Your task to perform on an android device: turn on improve location accuracy Image 0: 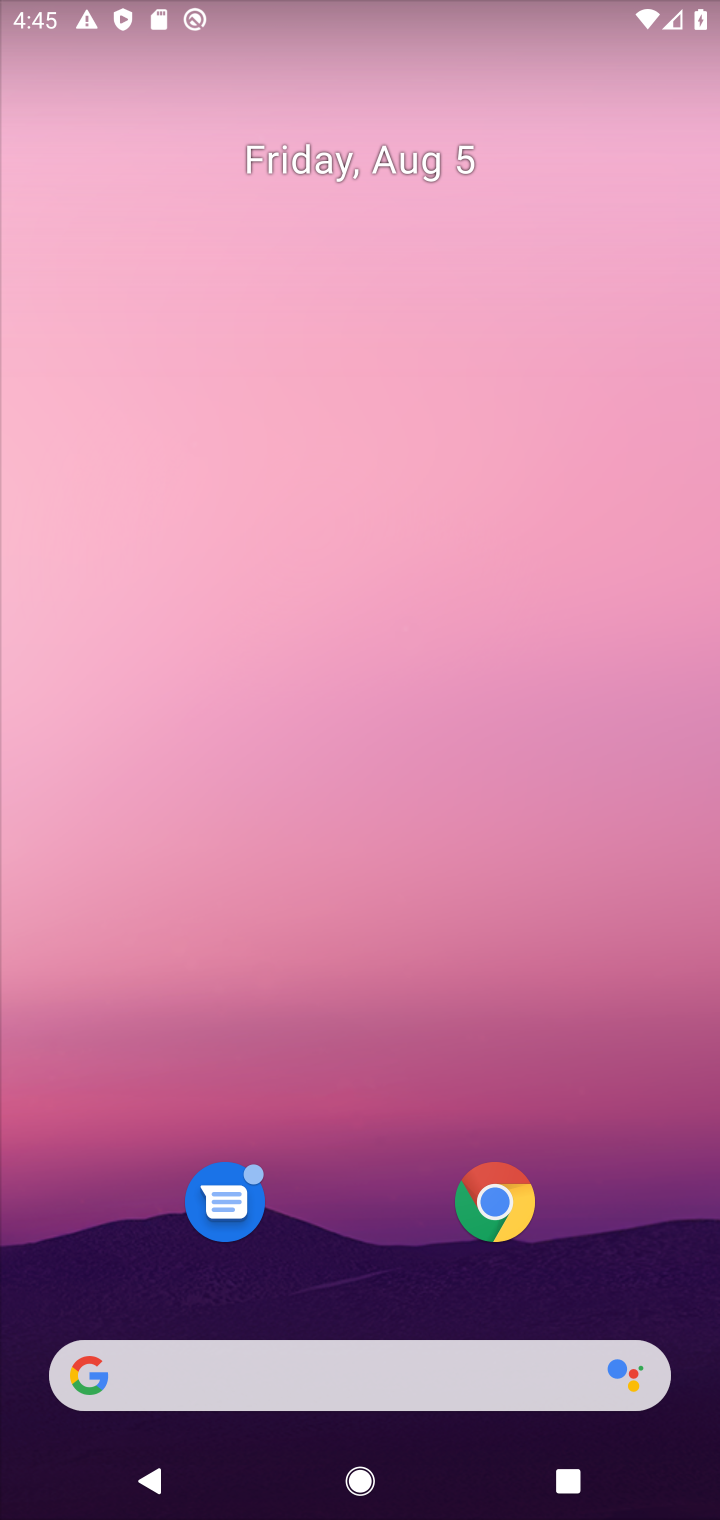
Step 0: drag from (342, 1260) to (292, 435)
Your task to perform on an android device: turn on improve location accuracy Image 1: 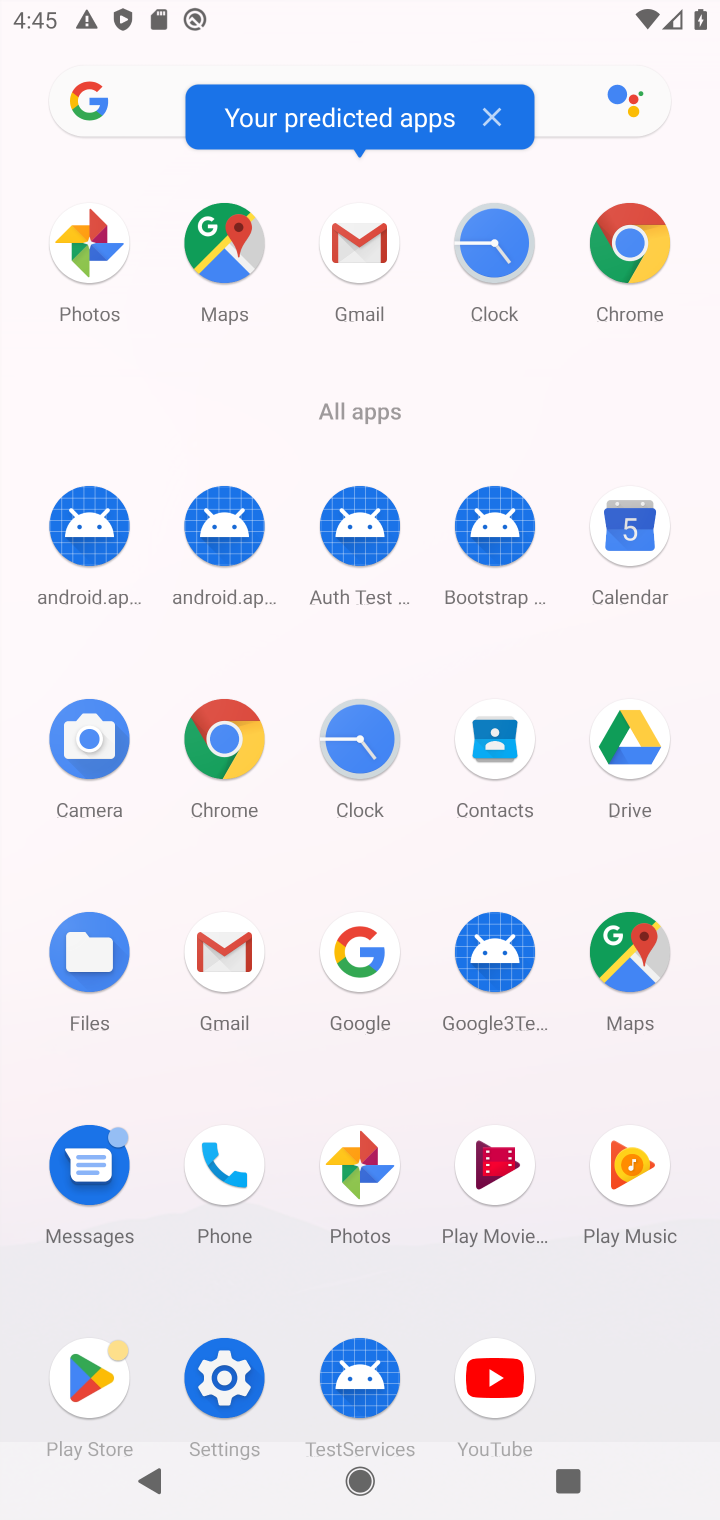
Step 1: click (199, 1348)
Your task to perform on an android device: turn on improve location accuracy Image 2: 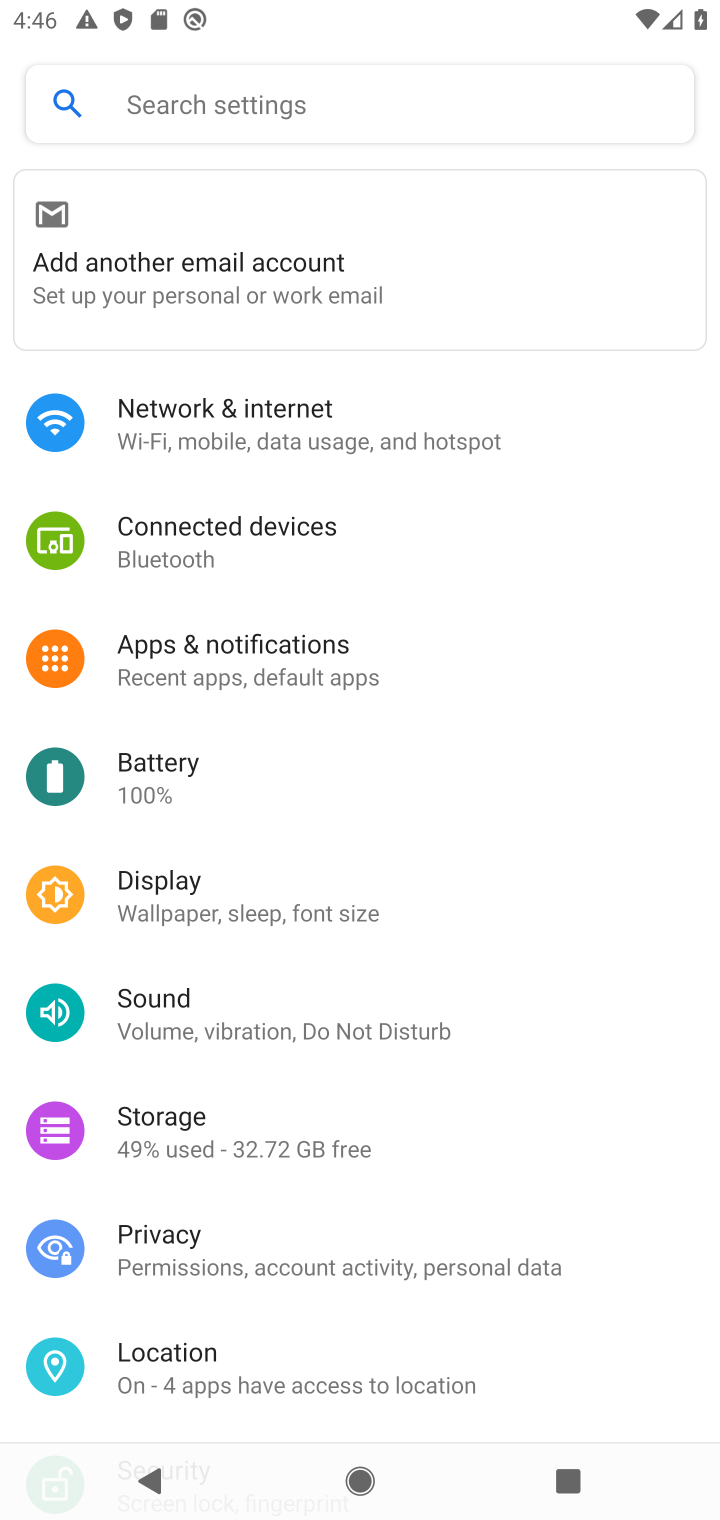
Step 2: click (249, 1378)
Your task to perform on an android device: turn on improve location accuracy Image 3: 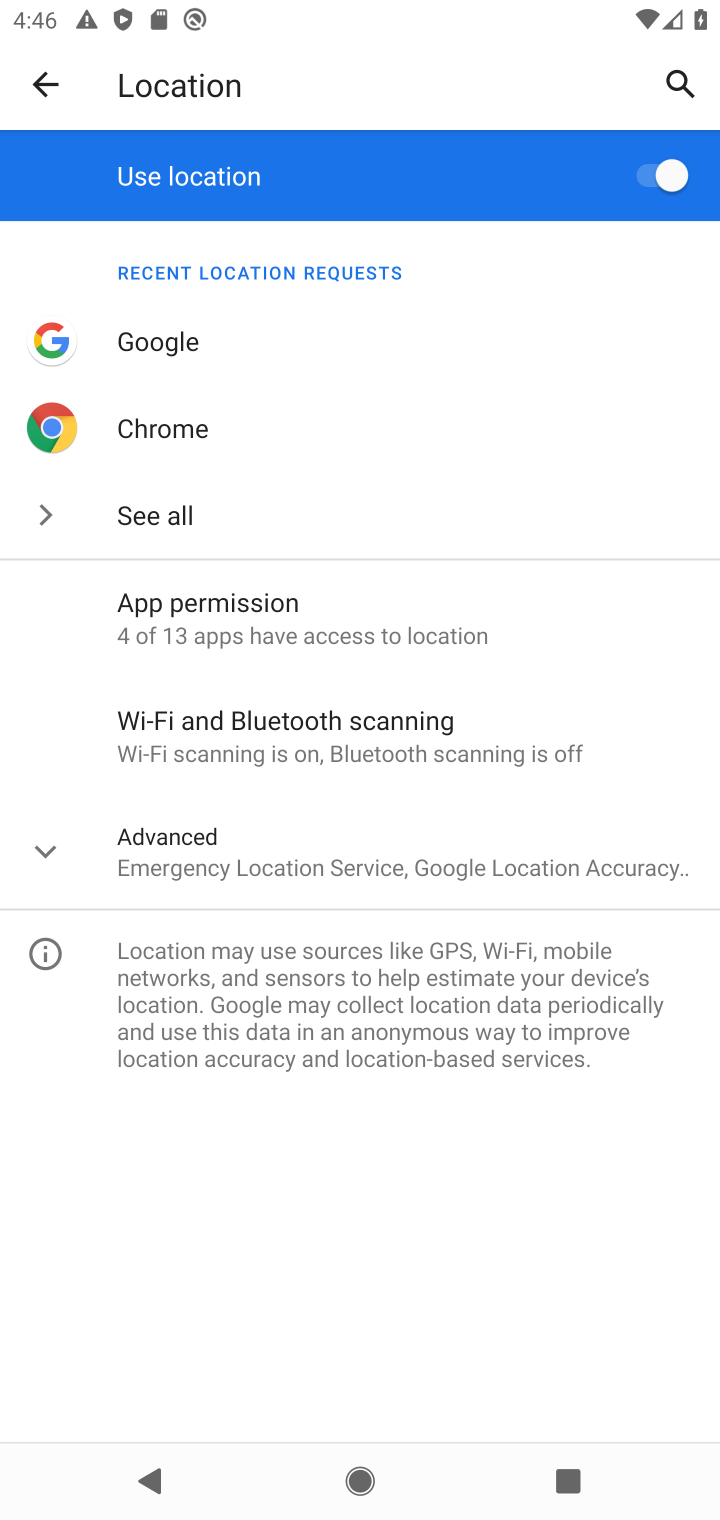
Step 3: click (240, 874)
Your task to perform on an android device: turn on improve location accuracy Image 4: 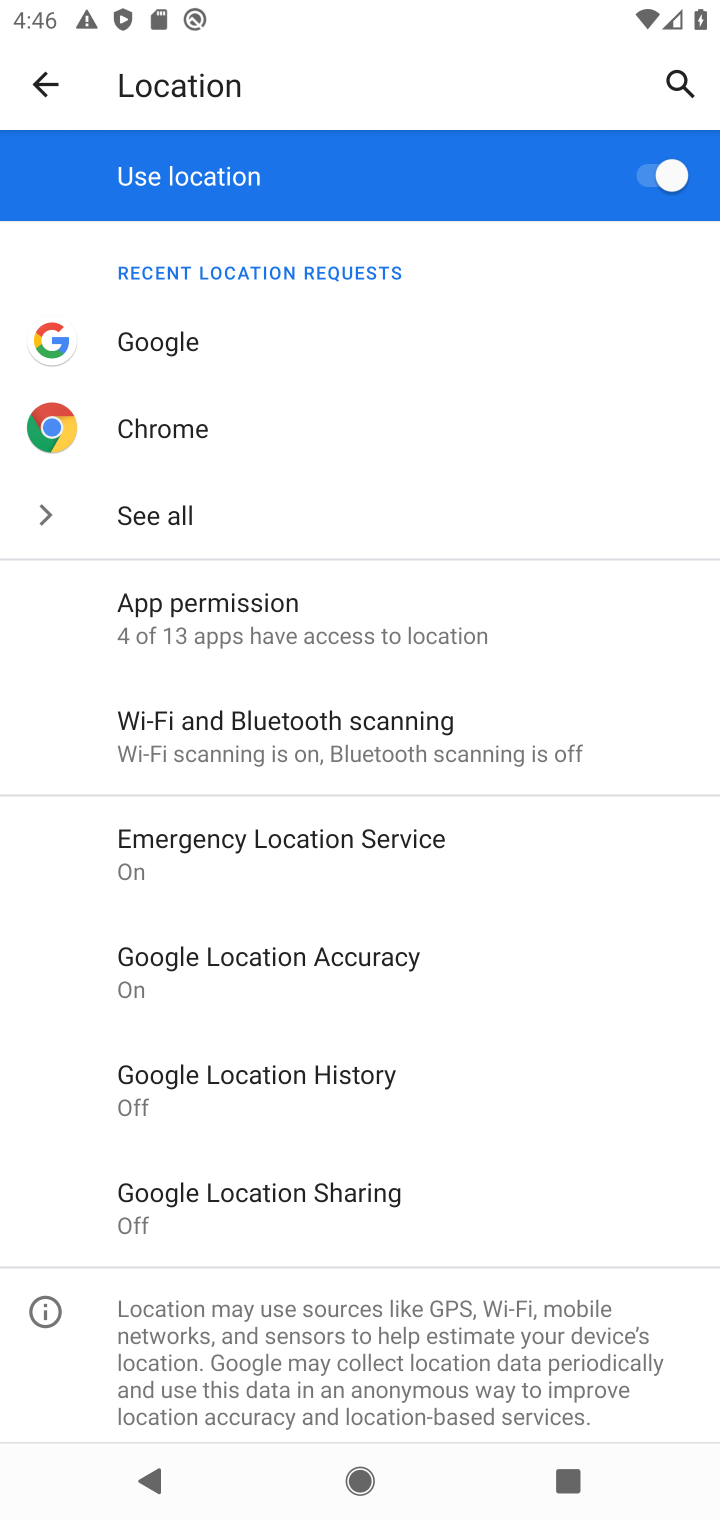
Step 4: click (363, 951)
Your task to perform on an android device: turn on improve location accuracy Image 5: 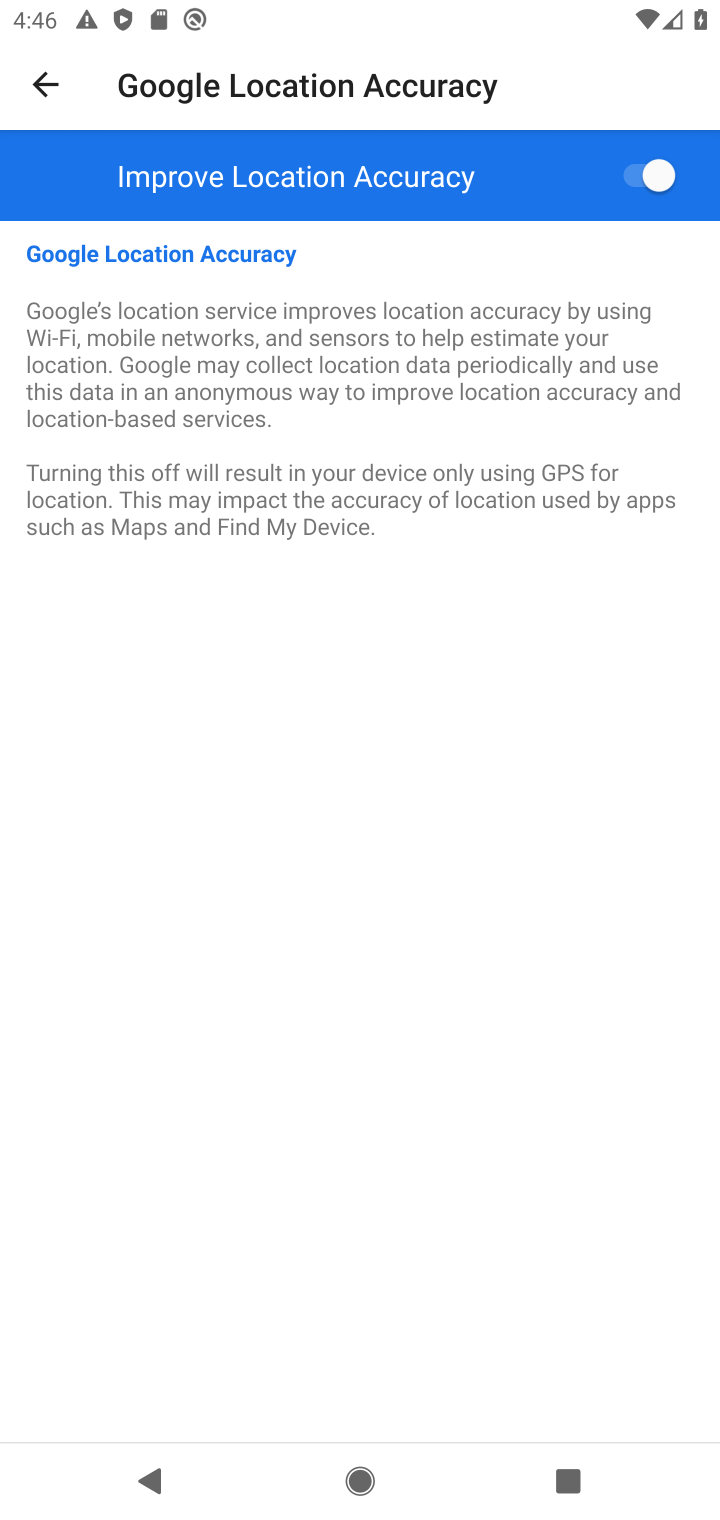
Step 5: task complete